Your task to perform on an android device: Check the weather Image 0: 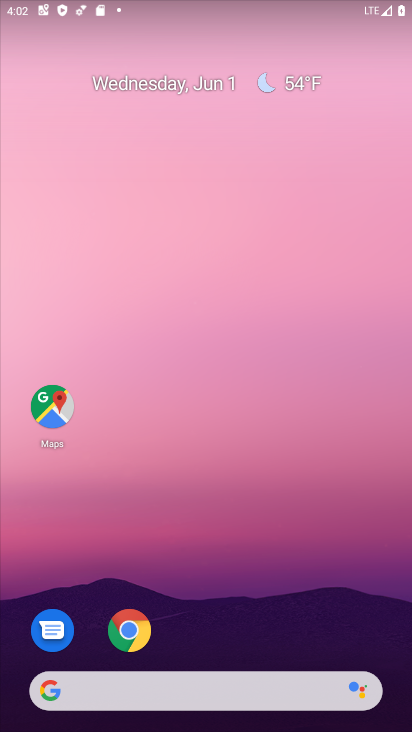
Step 0: drag from (270, 494) to (226, 65)
Your task to perform on an android device: Check the weather Image 1: 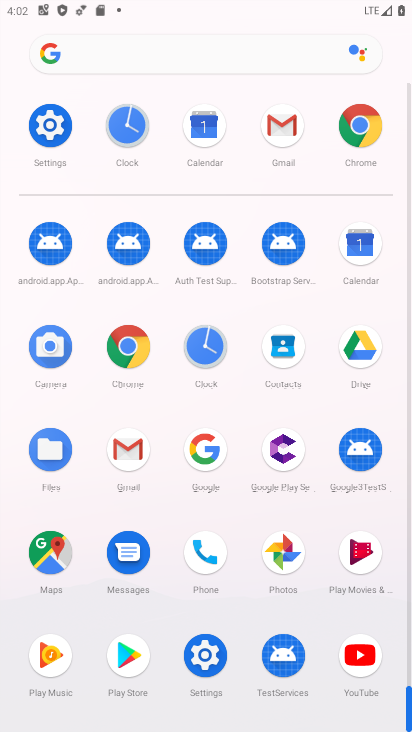
Step 1: drag from (8, 599) to (7, 204)
Your task to perform on an android device: Check the weather Image 2: 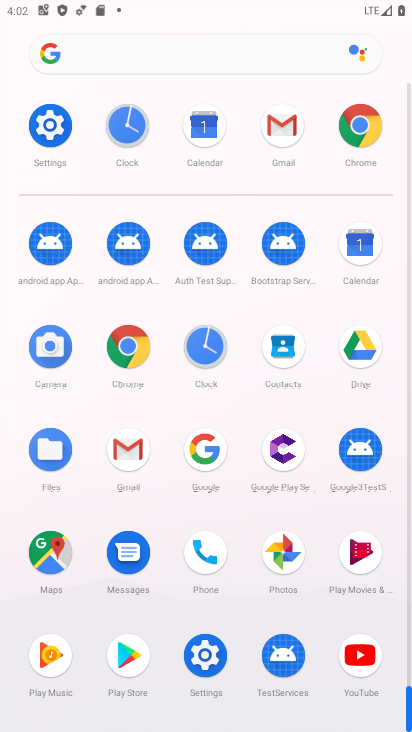
Step 2: click (130, 339)
Your task to perform on an android device: Check the weather Image 3: 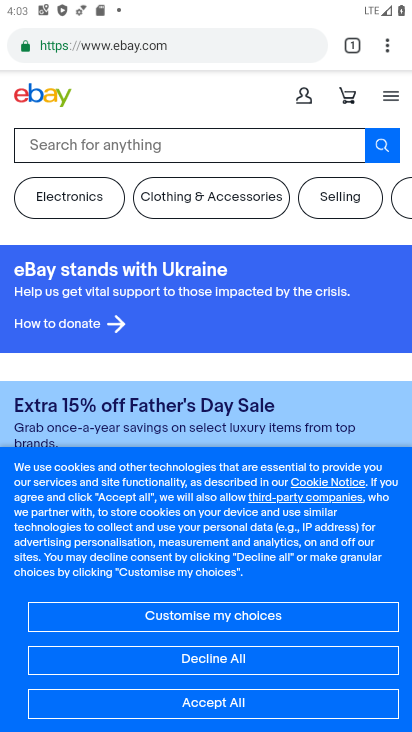
Step 3: click (179, 54)
Your task to perform on an android device: Check the weather Image 4: 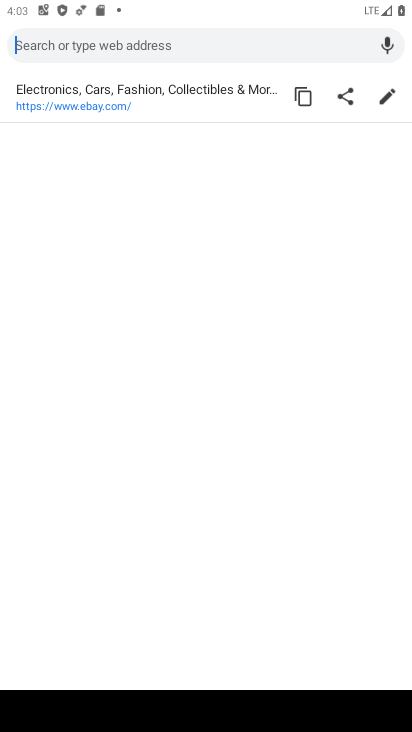
Step 4: type "Check the weather"
Your task to perform on an android device: Check the weather Image 5: 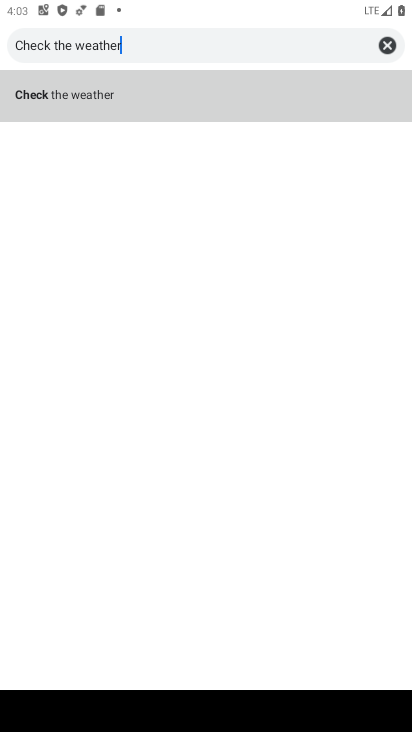
Step 5: type ""
Your task to perform on an android device: Check the weather Image 6: 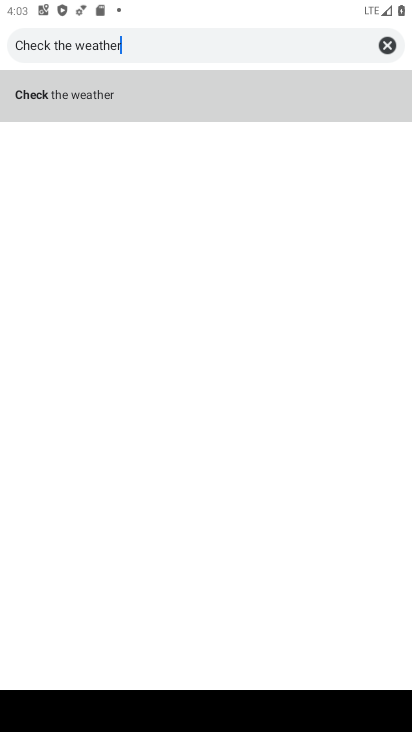
Step 6: click (153, 96)
Your task to perform on an android device: Check the weather Image 7: 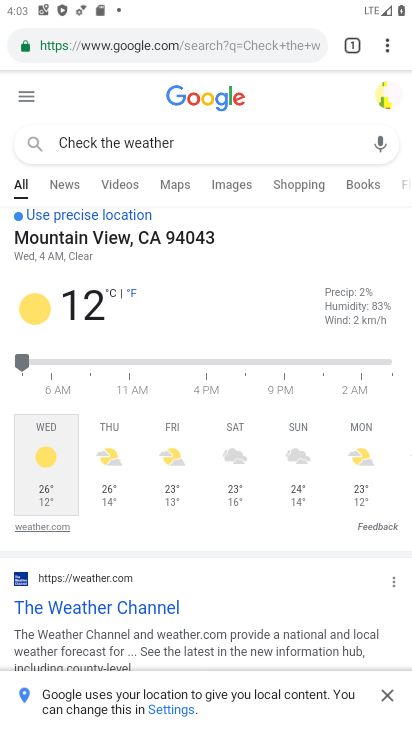
Step 7: task complete